Your task to perform on an android device: Set the phone to "Do not disturb". Image 0: 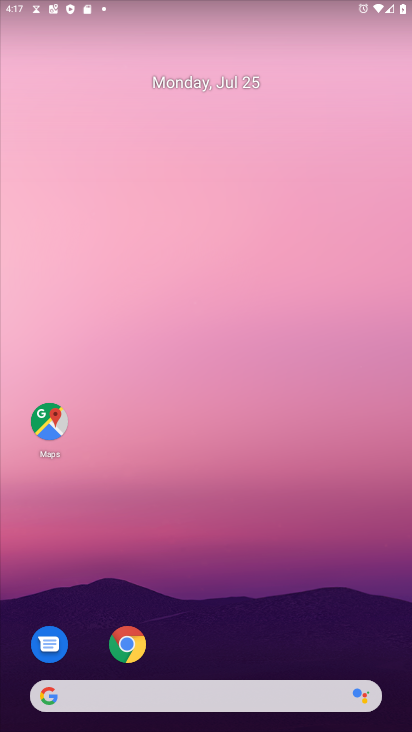
Step 0: press home button
Your task to perform on an android device: Set the phone to "Do not disturb". Image 1: 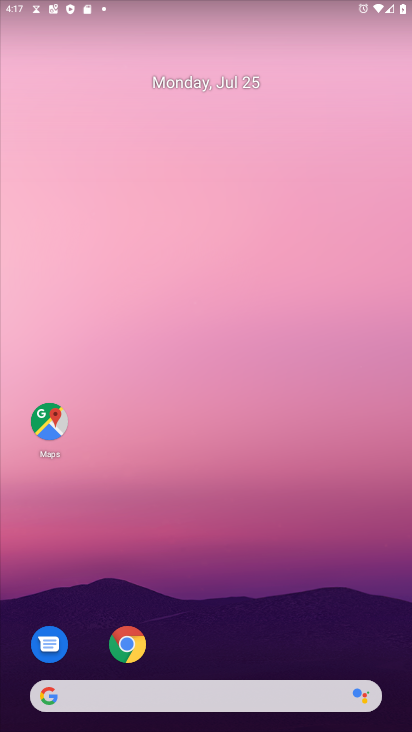
Step 1: drag from (215, 4) to (227, 328)
Your task to perform on an android device: Set the phone to "Do not disturb". Image 2: 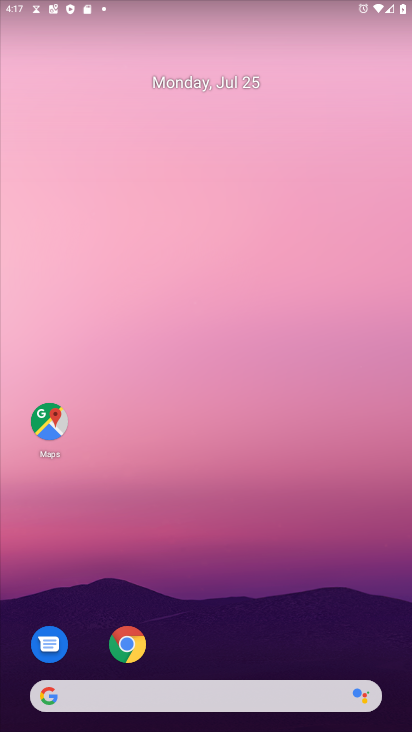
Step 2: drag from (221, 3) to (236, 408)
Your task to perform on an android device: Set the phone to "Do not disturb". Image 3: 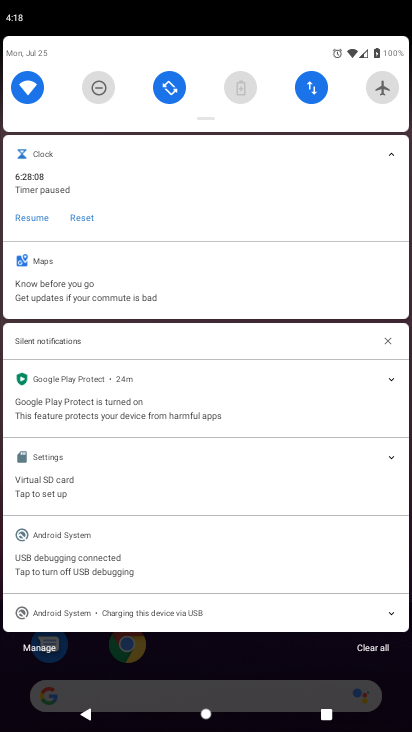
Step 3: click (104, 80)
Your task to perform on an android device: Set the phone to "Do not disturb". Image 4: 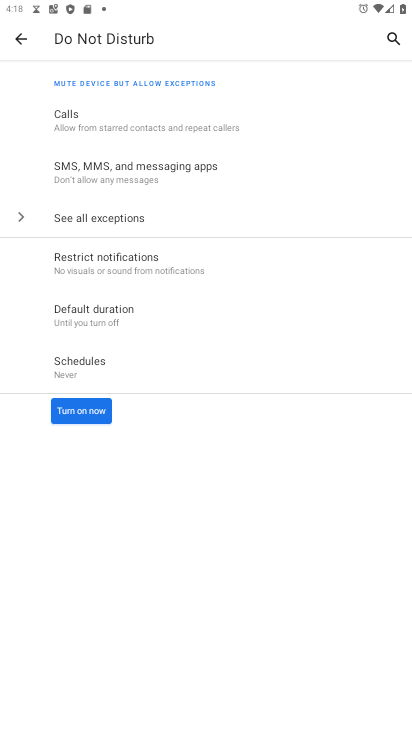
Step 4: click (83, 413)
Your task to perform on an android device: Set the phone to "Do not disturb". Image 5: 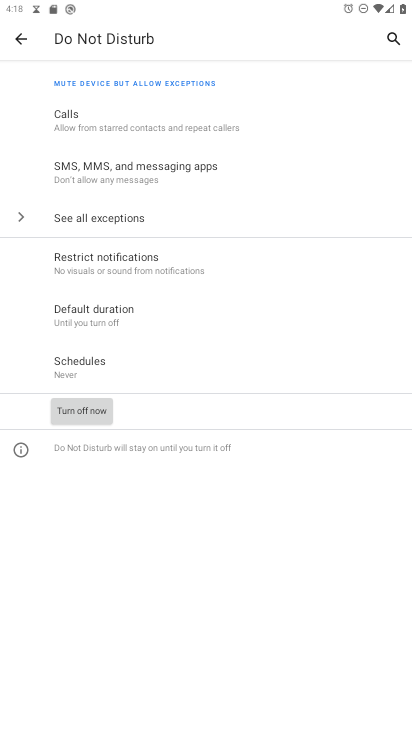
Step 5: task complete